Your task to perform on an android device: Open the Play Movies app and select the watchlist tab. Image 0: 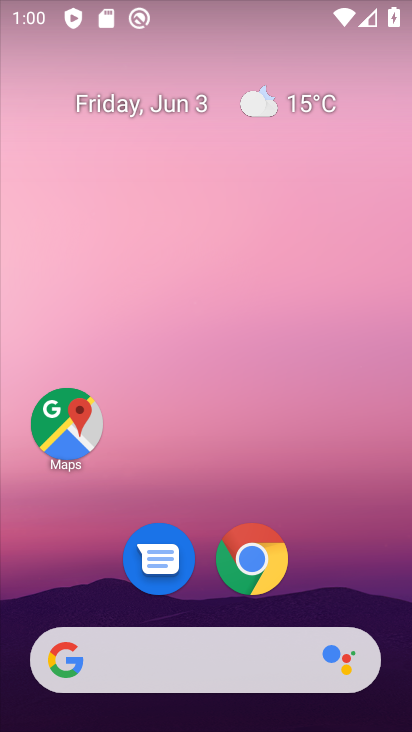
Step 0: drag from (107, 634) to (222, 133)
Your task to perform on an android device: Open the Play Movies app and select the watchlist tab. Image 1: 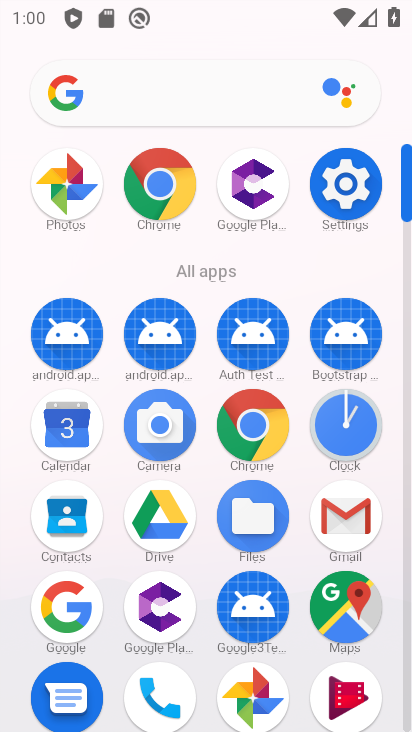
Step 1: click (366, 696)
Your task to perform on an android device: Open the Play Movies app and select the watchlist tab. Image 2: 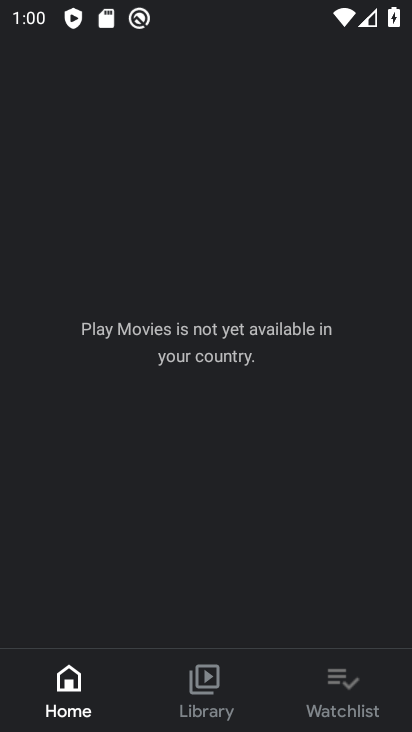
Step 2: click (347, 688)
Your task to perform on an android device: Open the Play Movies app and select the watchlist tab. Image 3: 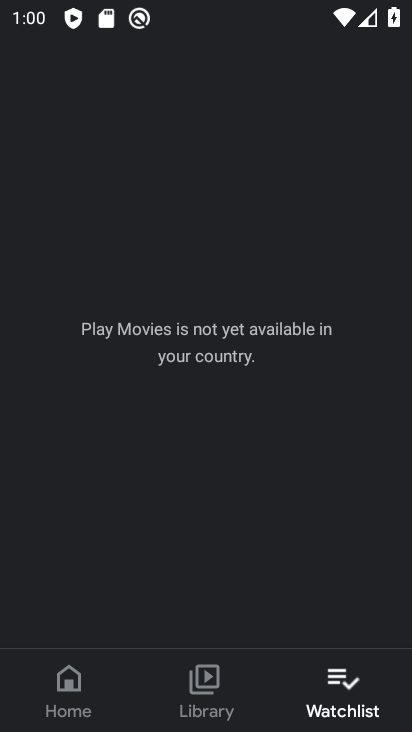
Step 3: click (347, 688)
Your task to perform on an android device: Open the Play Movies app and select the watchlist tab. Image 4: 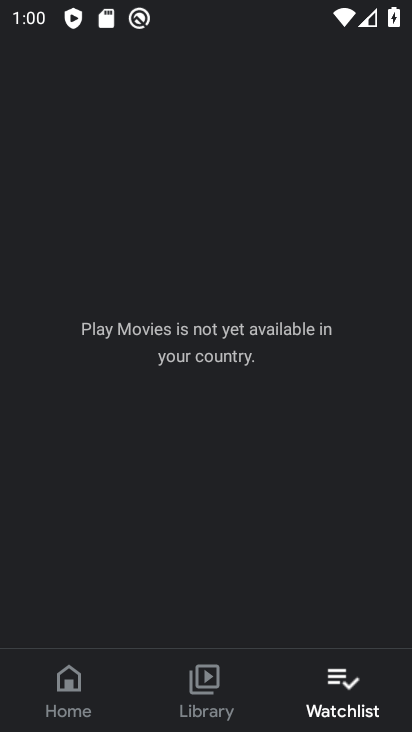
Step 4: task complete